Your task to perform on an android device: Open Google Maps Image 0: 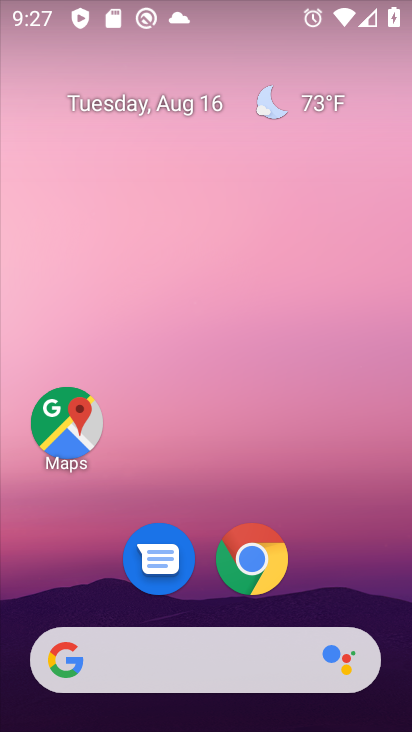
Step 0: click (67, 426)
Your task to perform on an android device: Open Google Maps Image 1: 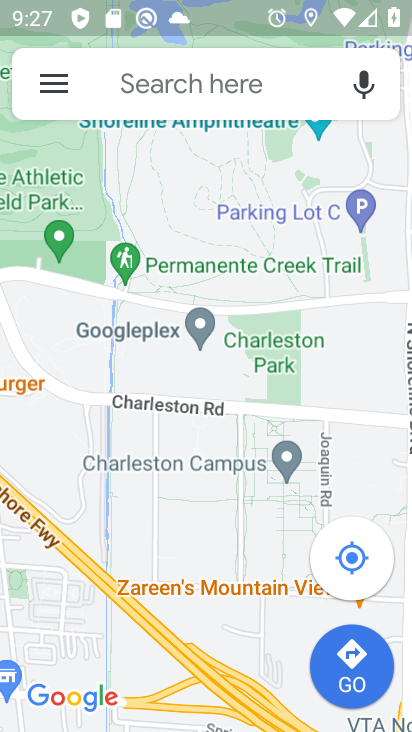
Step 1: task complete